Your task to perform on an android device: Open Android settings Image 0: 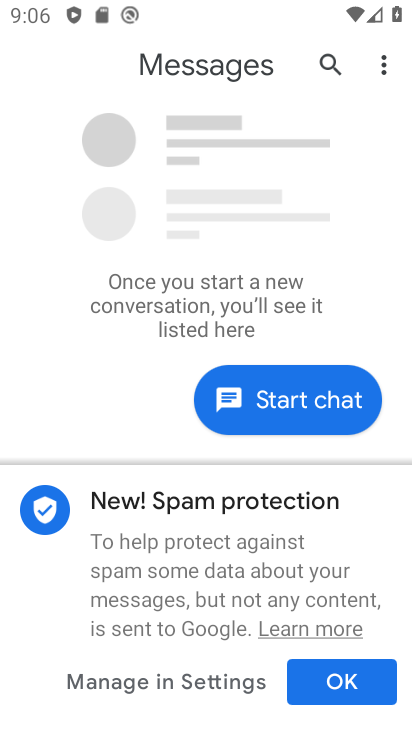
Step 0: press home button
Your task to perform on an android device: Open Android settings Image 1: 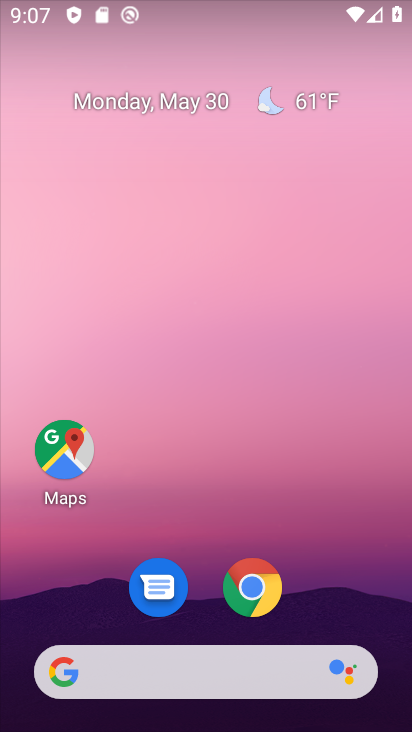
Step 1: drag from (209, 648) to (364, 9)
Your task to perform on an android device: Open Android settings Image 2: 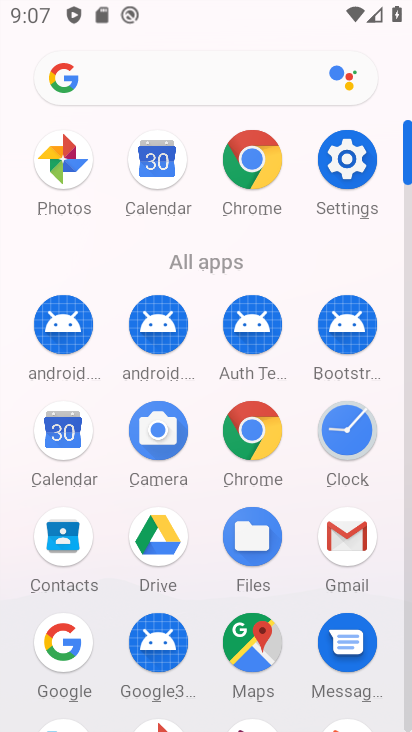
Step 2: click (351, 149)
Your task to perform on an android device: Open Android settings Image 3: 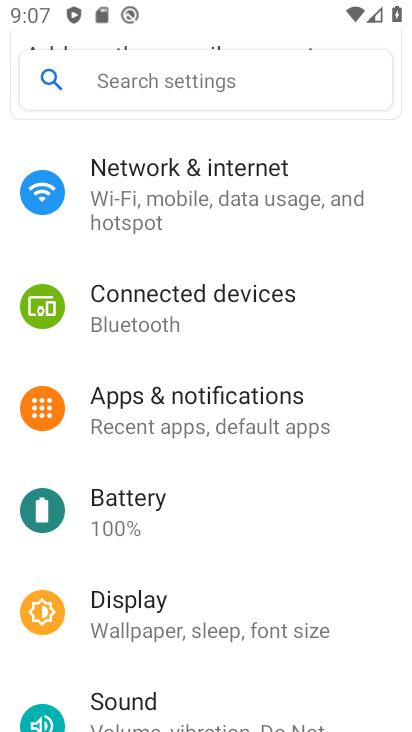
Step 3: drag from (235, 618) to (225, 0)
Your task to perform on an android device: Open Android settings Image 4: 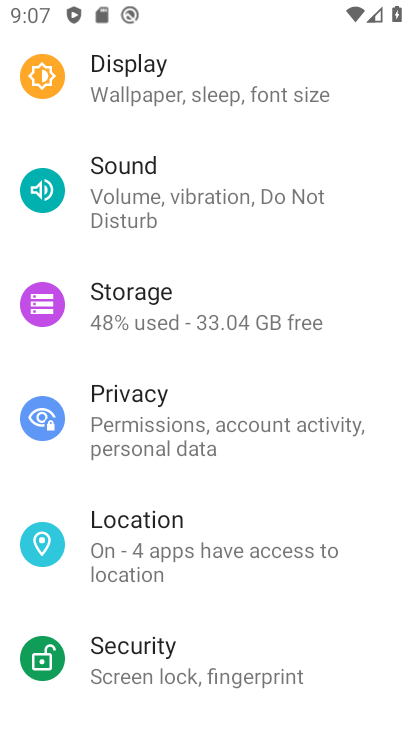
Step 4: drag from (253, 597) to (253, 58)
Your task to perform on an android device: Open Android settings Image 5: 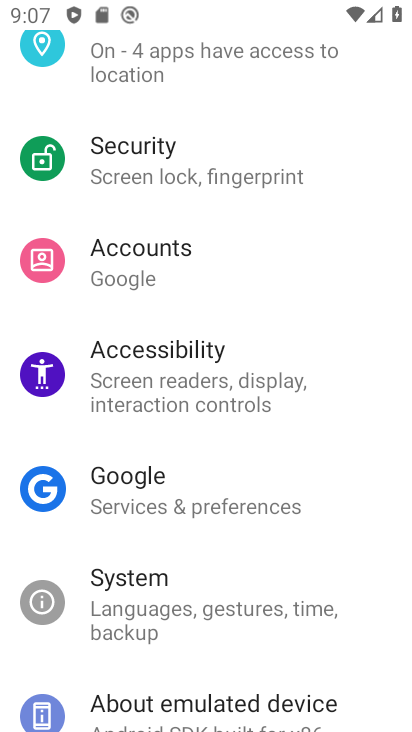
Step 5: click (201, 727)
Your task to perform on an android device: Open Android settings Image 6: 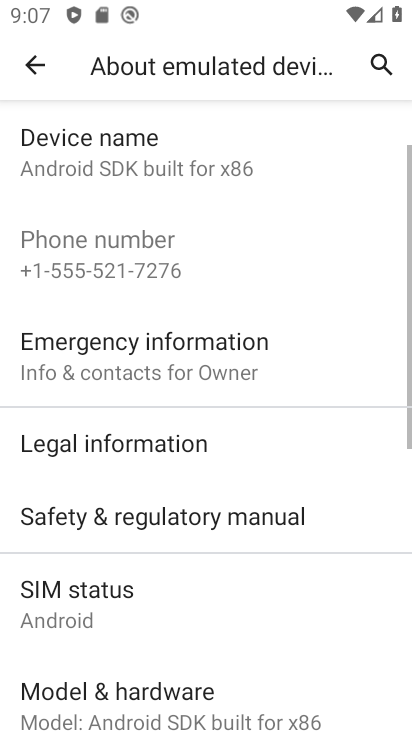
Step 6: task complete